Your task to perform on an android device: move a message to another label in the gmail app Image 0: 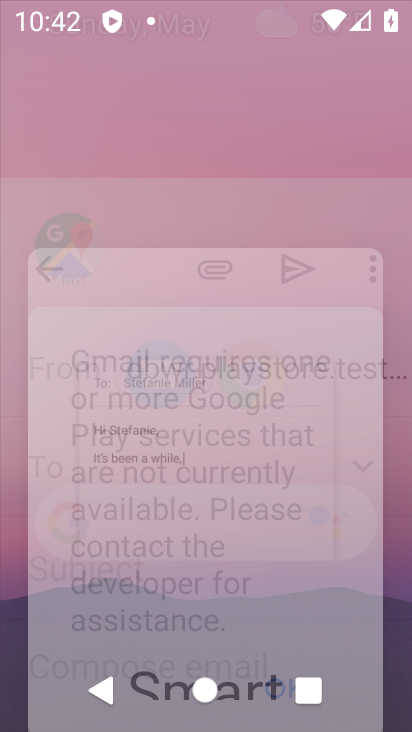
Step 0: drag from (193, 316) to (326, 13)
Your task to perform on an android device: move a message to another label in the gmail app Image 1: 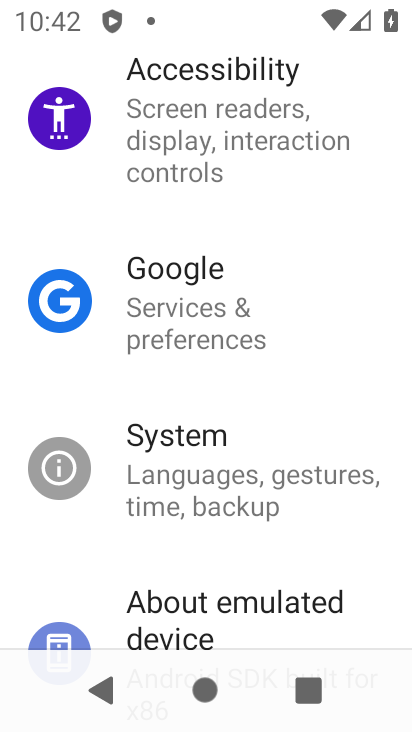
Step 1: drag from (267, 245) to (235, 705)
Your task to perform on an android device: move a message to another label in the gmail app Image 2: 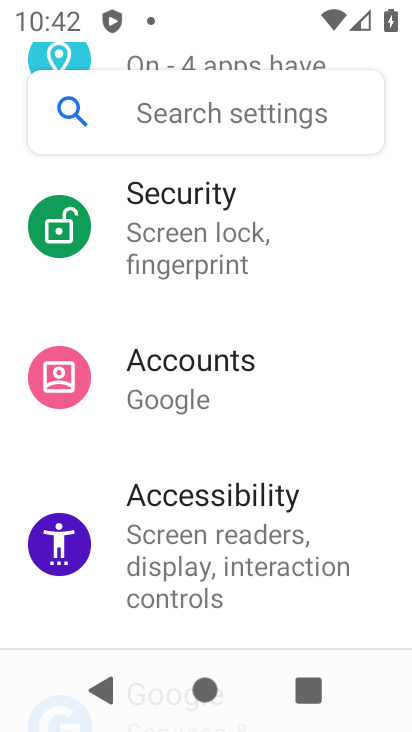
Step 2: press home button
Your task to perform on an android device: move a message to another label in the gmail app Image 3: 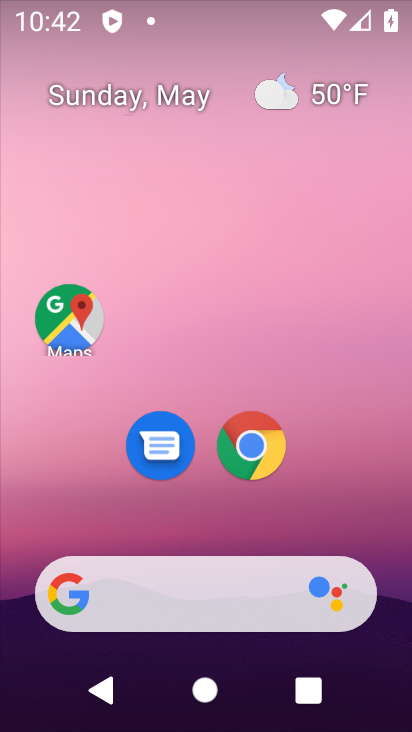
Step 3: drag from (236, 520) to (252, 85)
Your task to perform on an android device: move a message to another label in the gmail app Image 4: 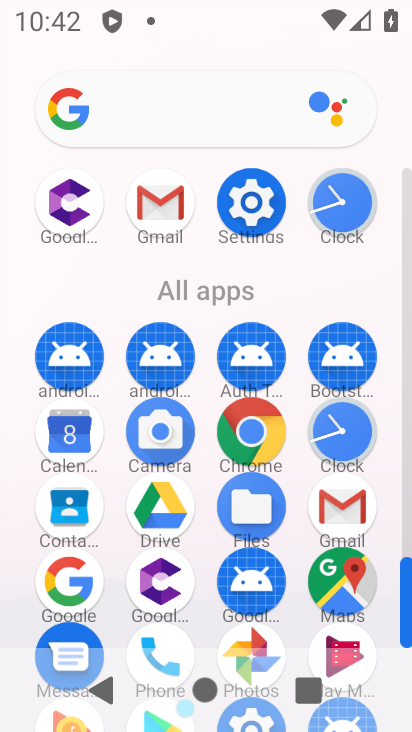
Step 4: click (359, 489)
Your task to perform on an android device: move a message to another label in the gmail app Image 5: 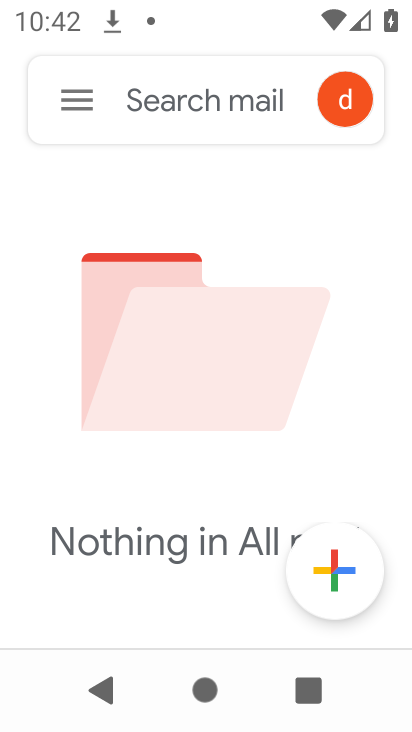
Step 5: task complete